Your task to perform on an android device: Go to wifi settings Image 0: 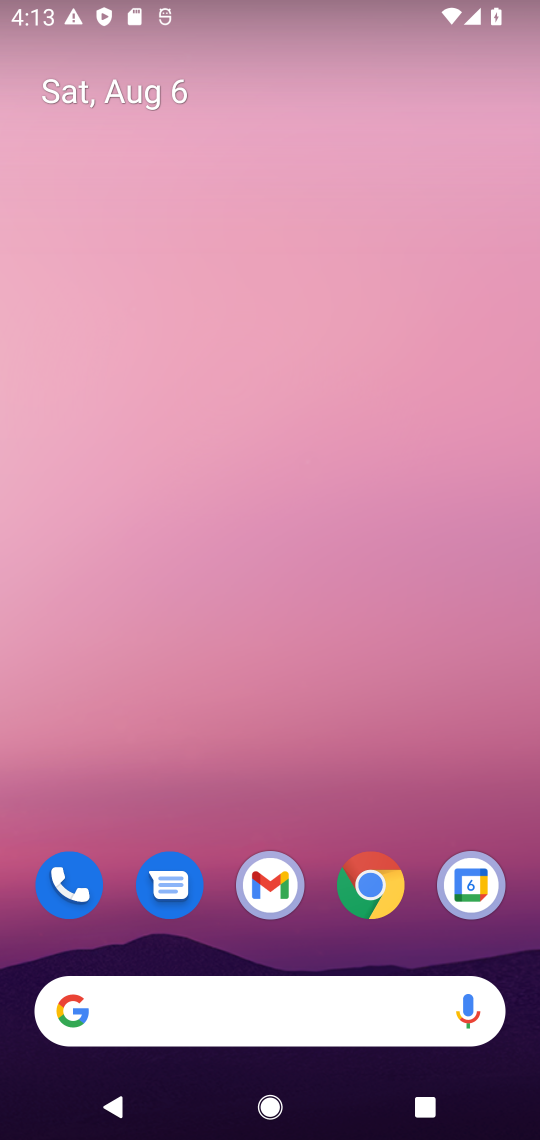
Step 0: click (293, 353)
Your task to perform on an android device: Go to wifi settings Image 1: 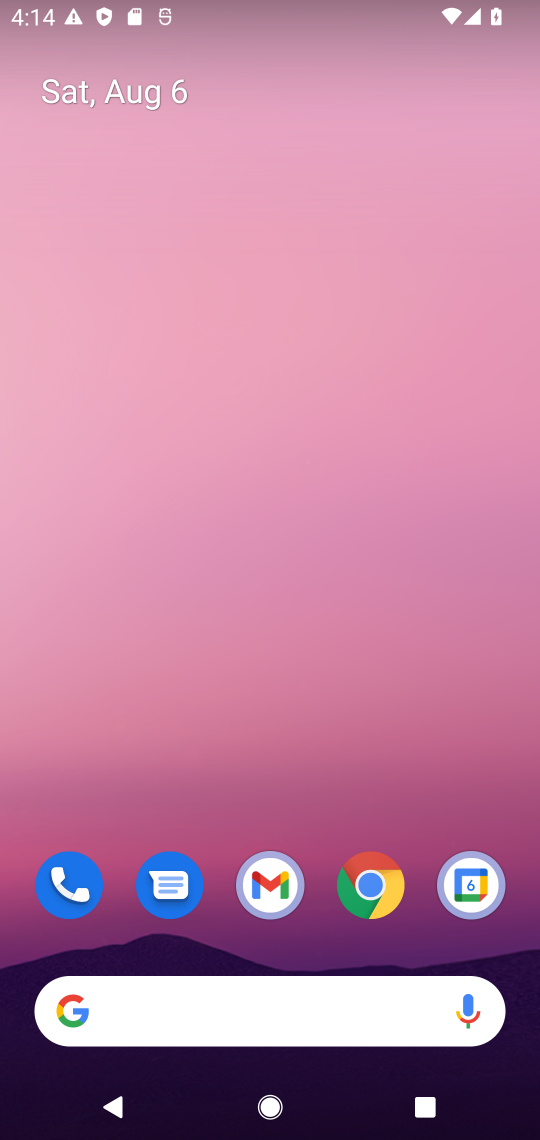
Step 1: click (322, 315)
Your task to perform on an android device: Go to wifi settings Image 2: 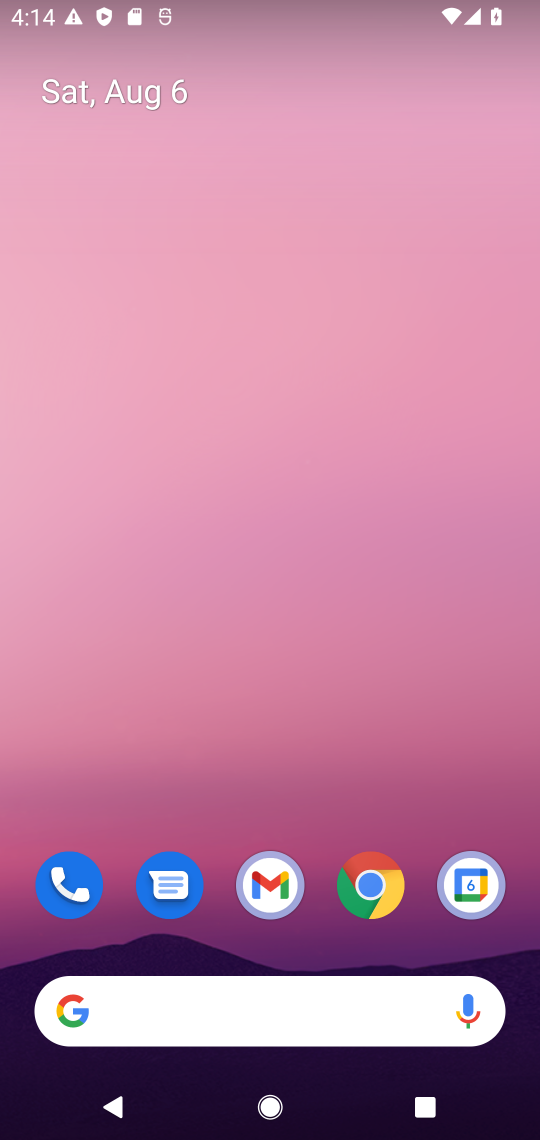
Step 2: drag from (297, 576) to (285, 136)
Your task to perform on an android device: Go to wifi settings Image 3: 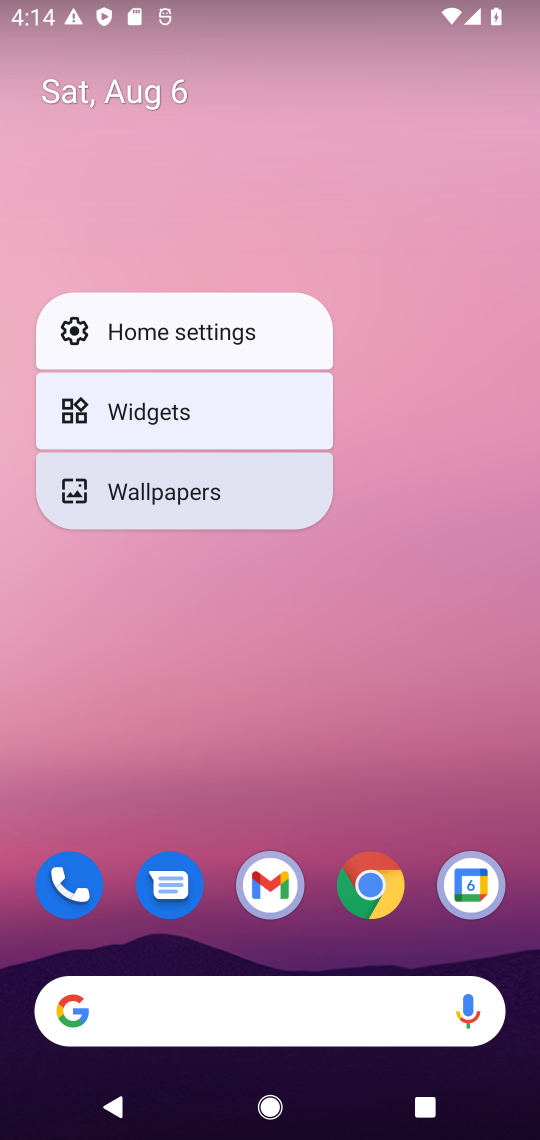
Step 3: drag from (360, 262) to (355, 154)
Your task to perform on an android device: Go to wifi settings Image 4: 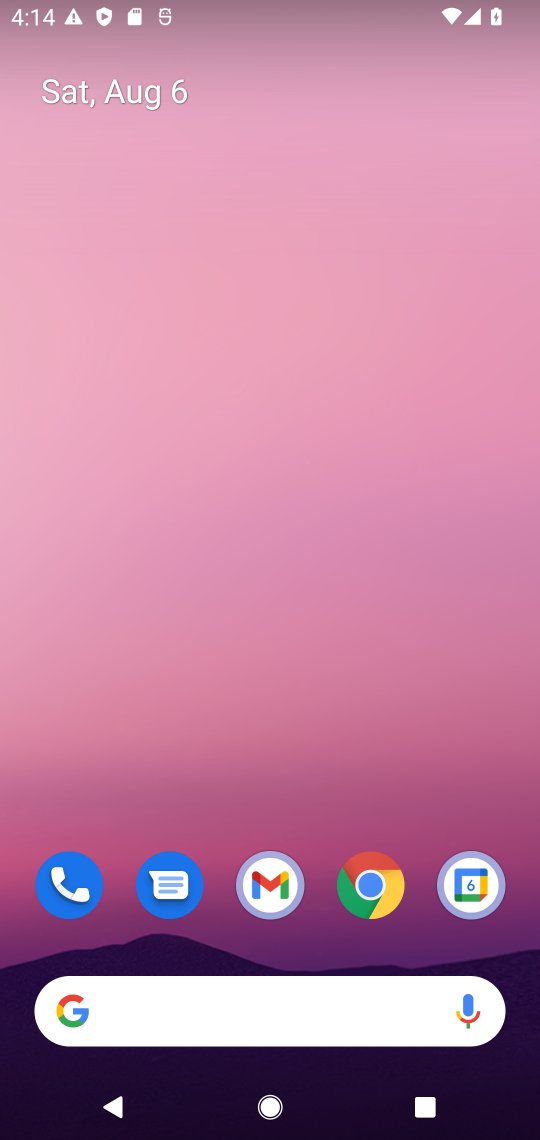
Step 4: press home button
Your task to perform on an android device: Go to wifi settings Image 5: 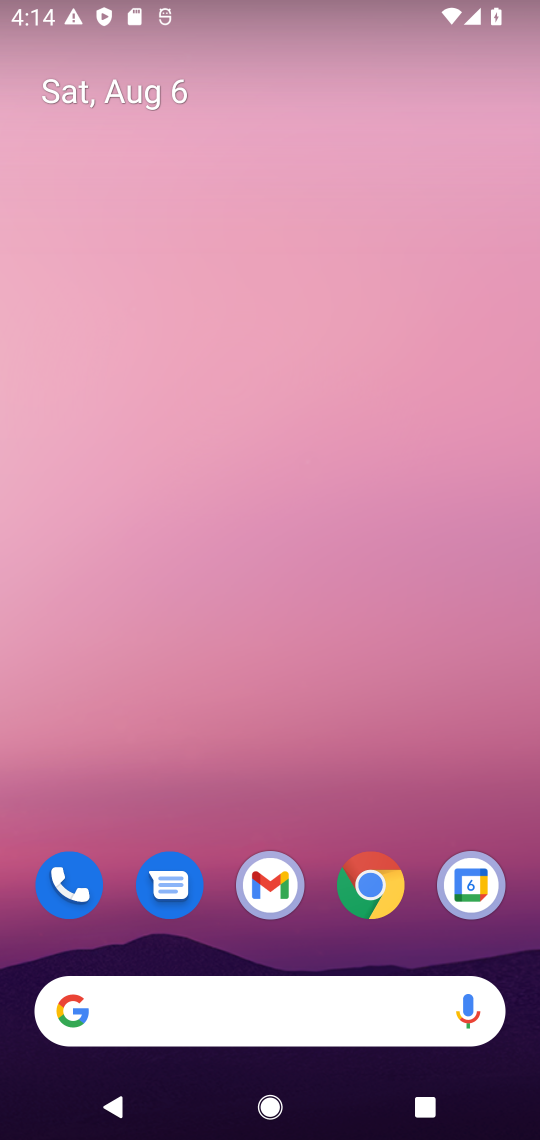
Step 5: drag from (267, 684) to (307, 191)
Your task to perform on an android device: Go to wifi settings Image 6: 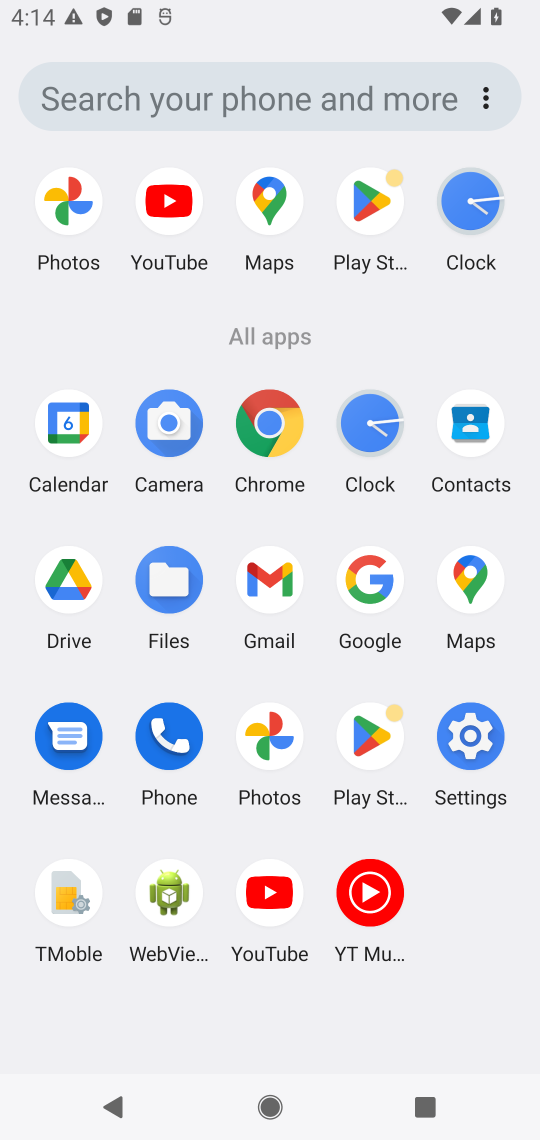
Step 6: drag from (351, 744) to (374, 280)
Your task to perform on an android device: Go to wifi settings Image 7: 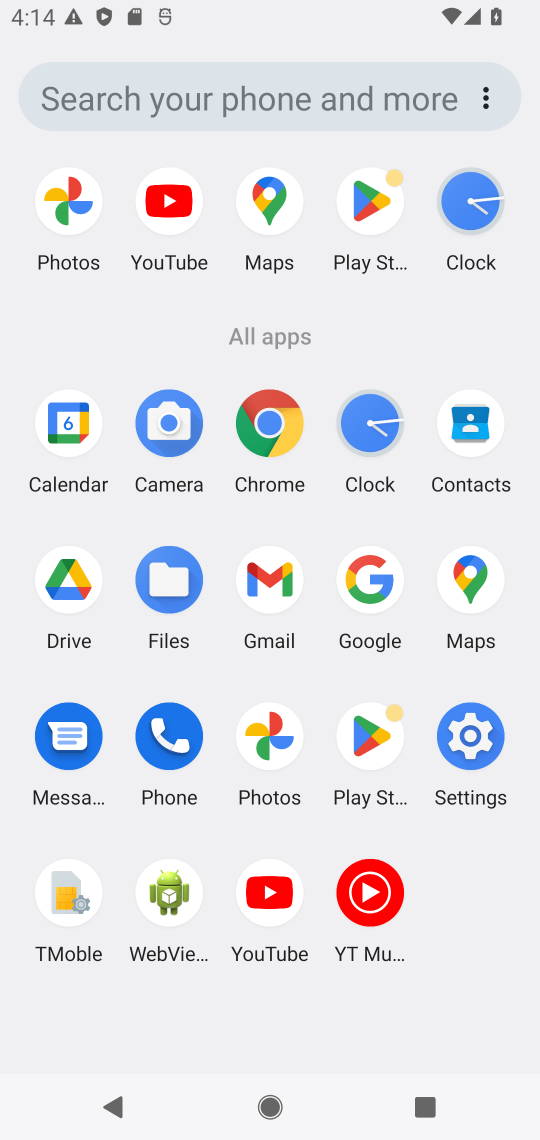
Step 7: click (475, 738)
Your task to perform on an android device: Go to wifi settings Image 8: 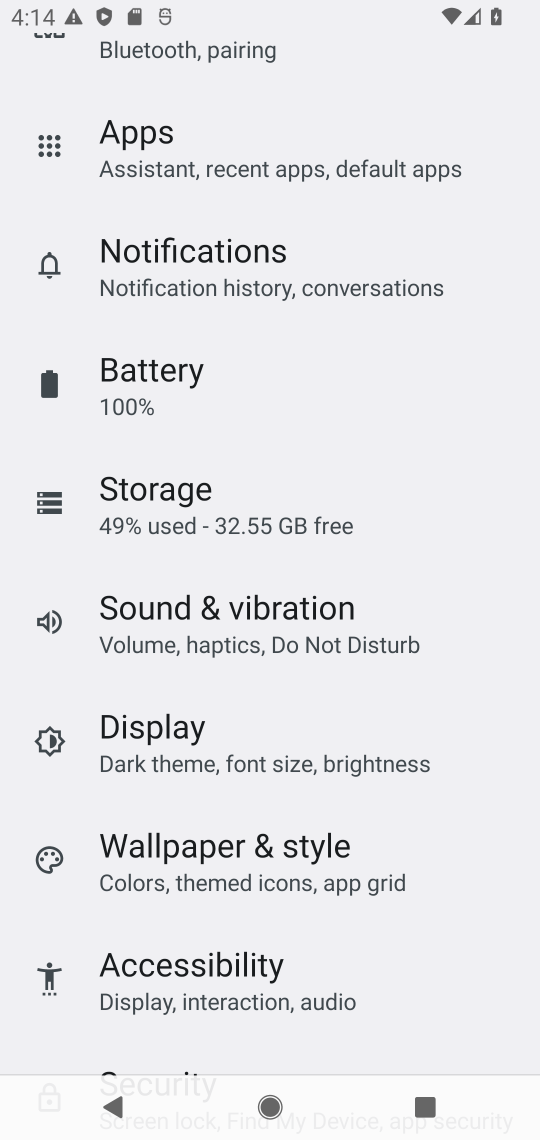
Step 8: task complete